Your task to perform on an android device: Add sony triple a to the cart on bestbuy Image 0: 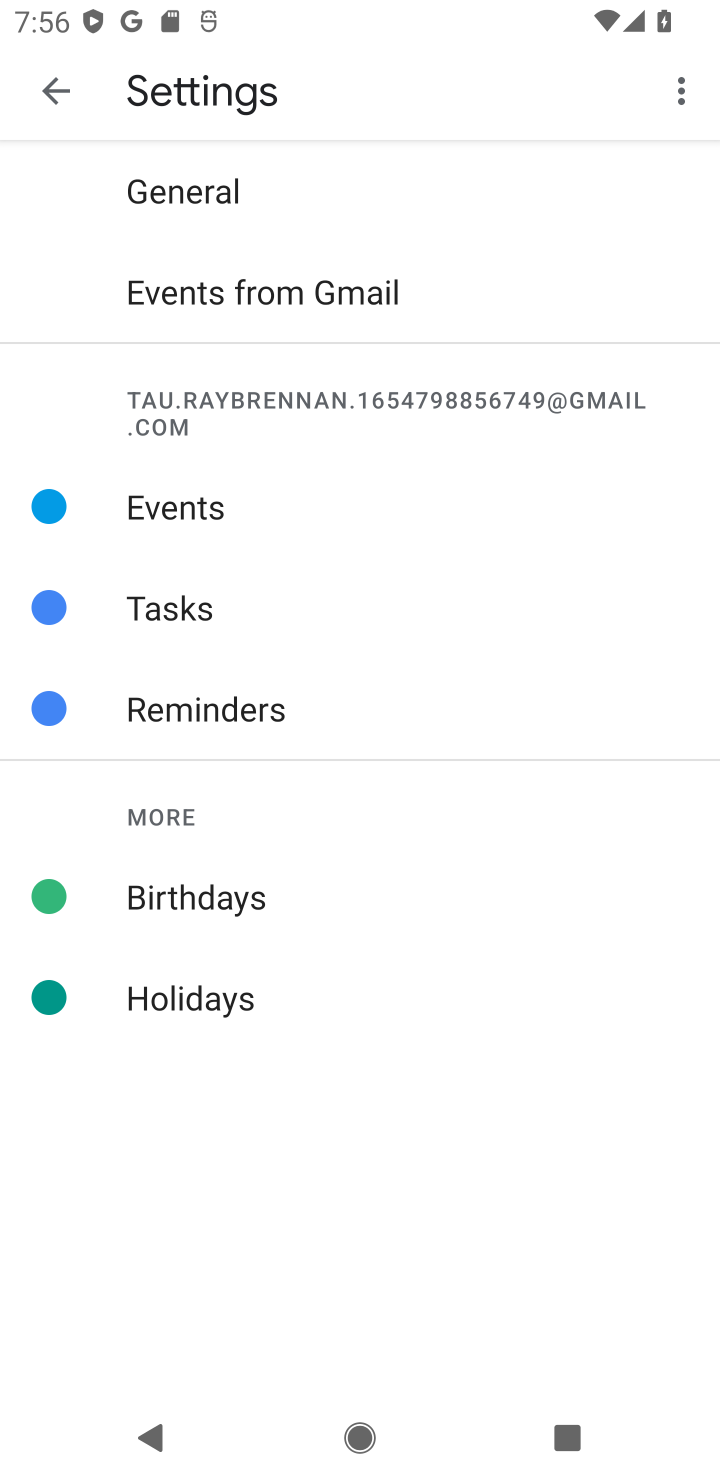
Step 0: task complete